Your task to perform on an android device: Go to Reddit.com Image 0: 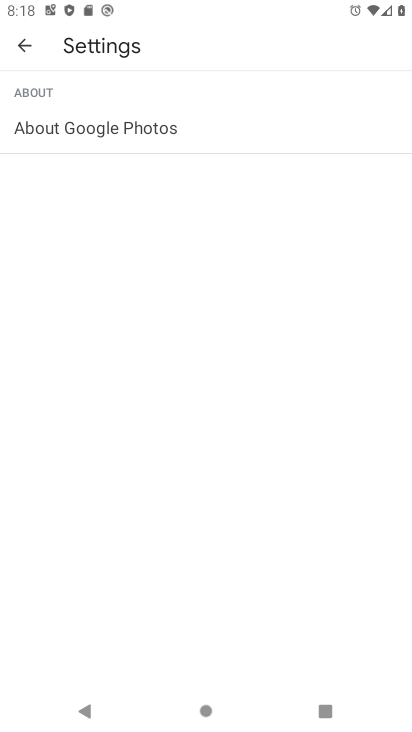
Step 0: press home button
Your task to perform on an android device: Go to Reddit.com Image 1: 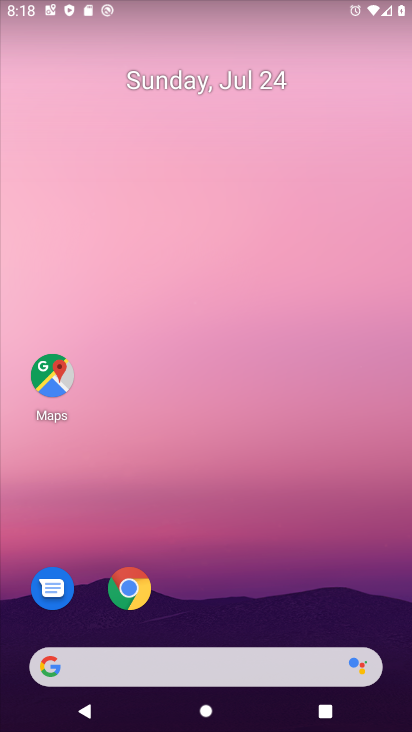
Step 1: drag from (291, 572) to (272, 2)
Your task to perform on an android device: Go to Reddit.com Image 2: 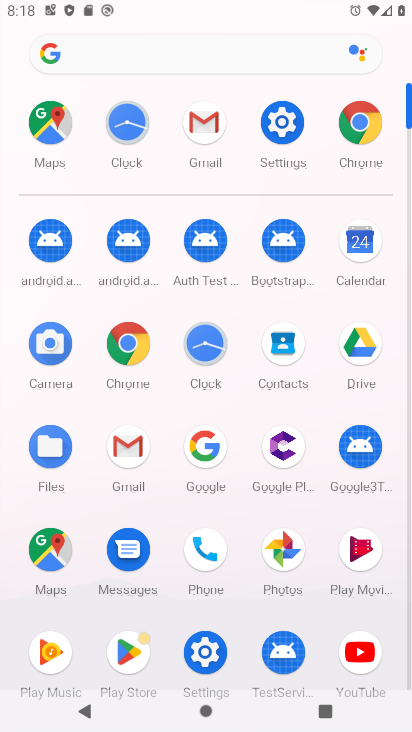
Step 2: click (372, 135)
Your task to perform on an android device: Go to Reddit.com Image 3: 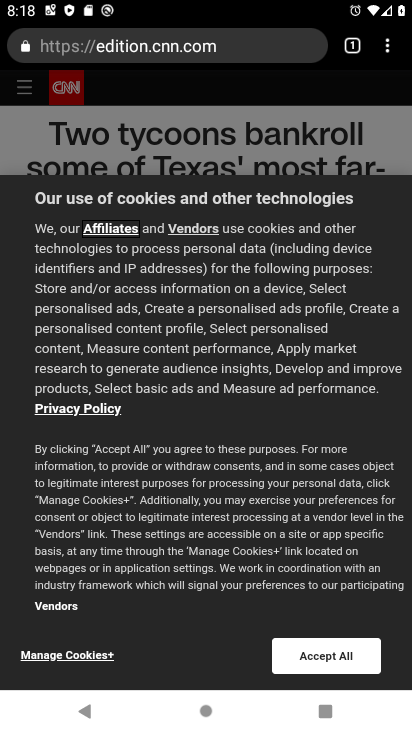
Step 3: click (251, 50)
Your task to perform on an android device: Go to Reddit.com Image 4: 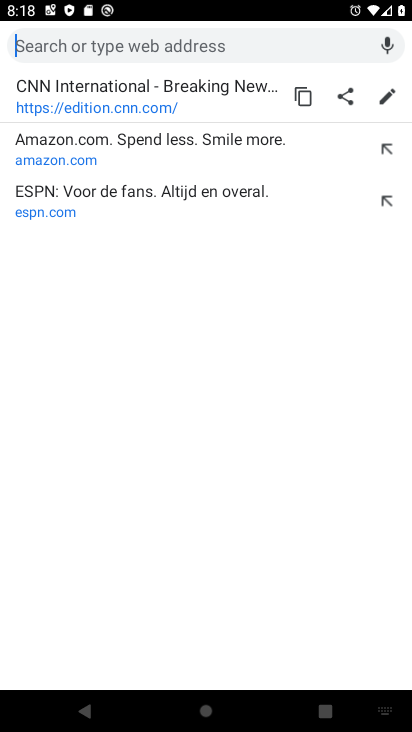
Step 4: drag from (239, 730) to (307, 518)
Your task to perform on an android device: Go to Reddit.com Image 5: 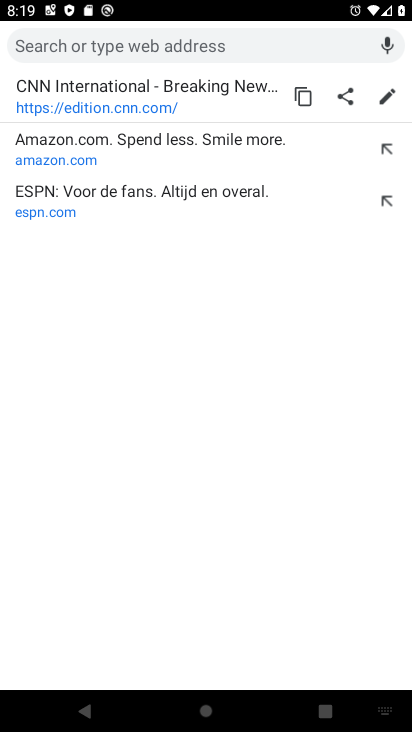
Step 5: type " Reddit.com"
Your task to perform on an android device: Go to Reddit.com Image 6: 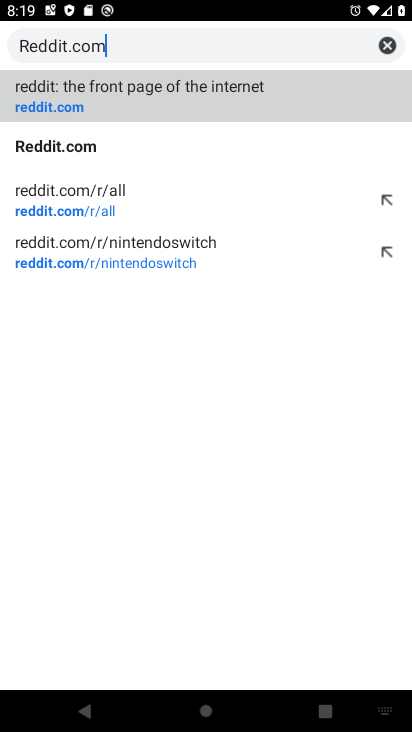
Step 6: click (53, 147)
Your task to perform on an android device: Go to Reddit.com Image 7: 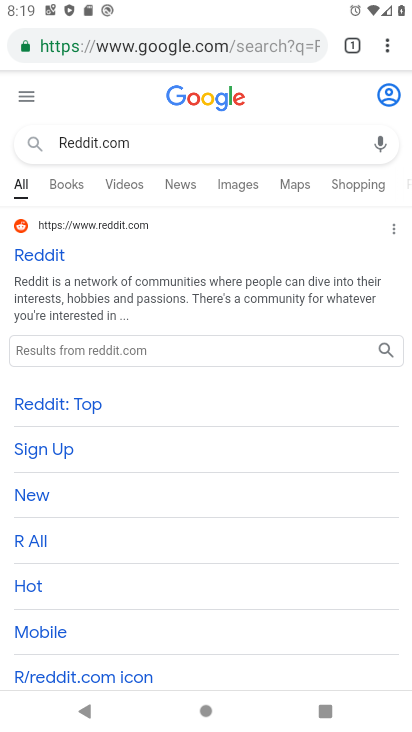
Step 7: click (46, 246)
Your task to perform on an android device: Go to Reddit.com Image 8: 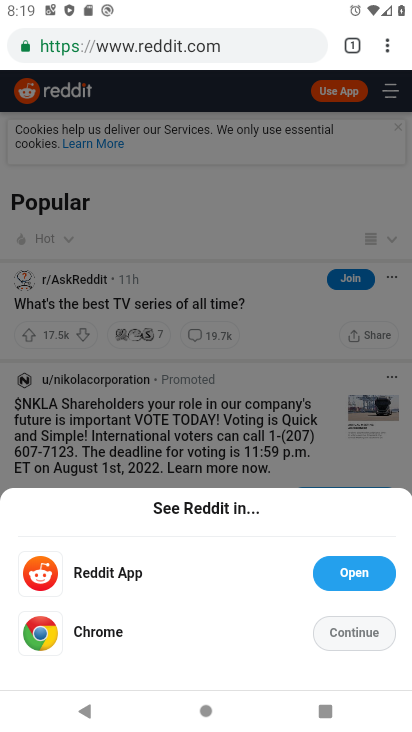
Step 8: click (385, 562)
Your task to perform on an android device: Go to Reddit.com Image 9: 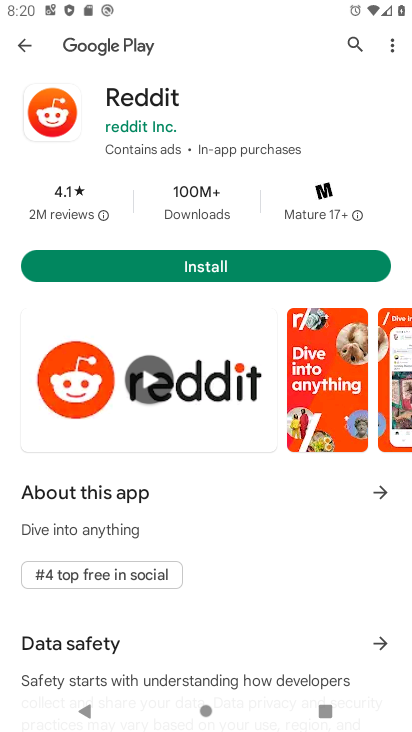
Step 9: task complete